Your task to perform on an android device: Go to Yahoo.com Image 0: 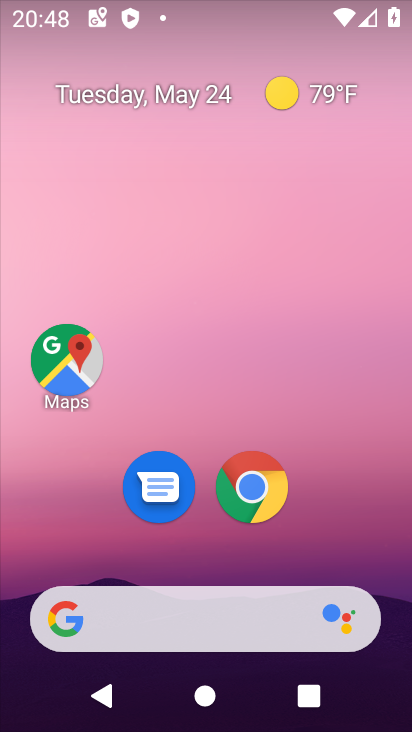
Step 0: click (259, 496)
Your task to perform on an android device: Go to Yahoo.com Image 1: 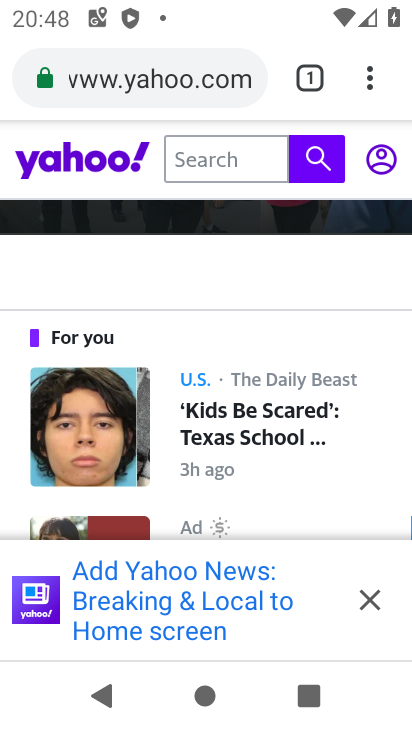
Step 1: task complete